Your task to perform on an android device: What's the news in the Dominican Republic? Image 0: 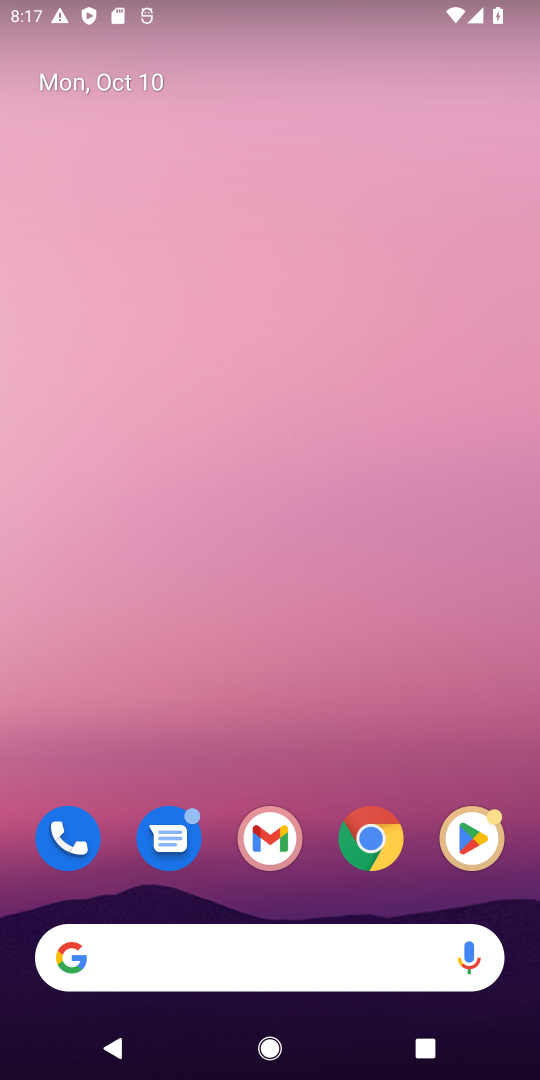
Step 0: press home button
Your task to perform on an android device: What's the news in the Dominican Republic? Image 1: 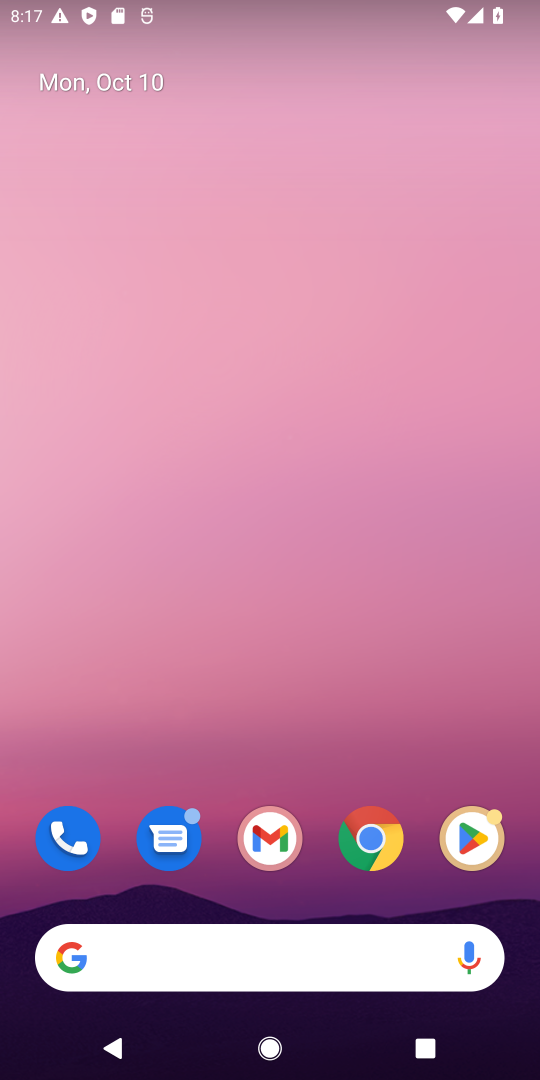
Step 1: drag from (311, 910) to (314, 96)
Your task to perform on an android device: What's the news in the Dominican Republic? Image 2: 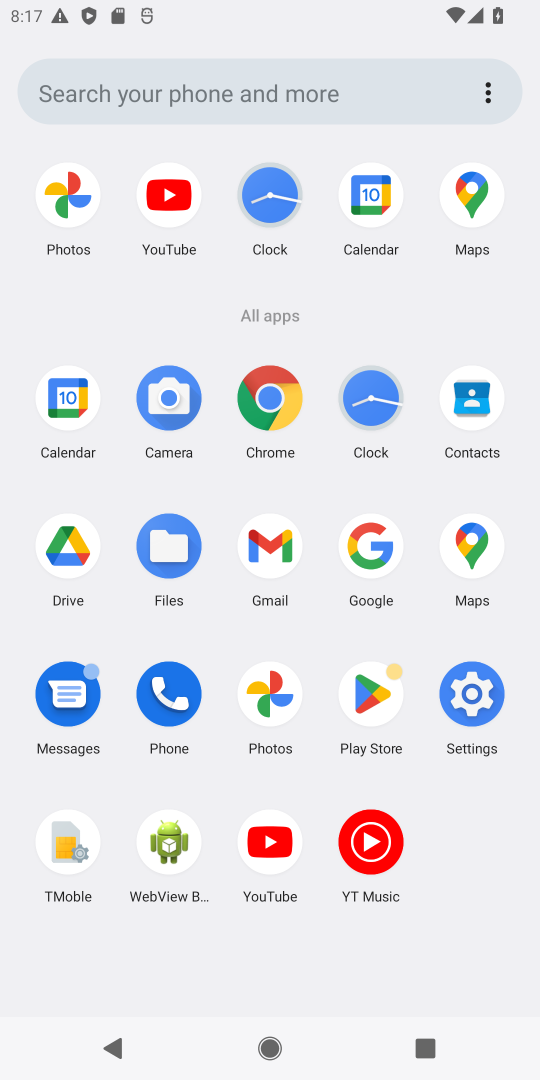
Step 2: click (369, 549)
Your task to perform on an android device: What's the news in the Dominican Republic? Image 3: 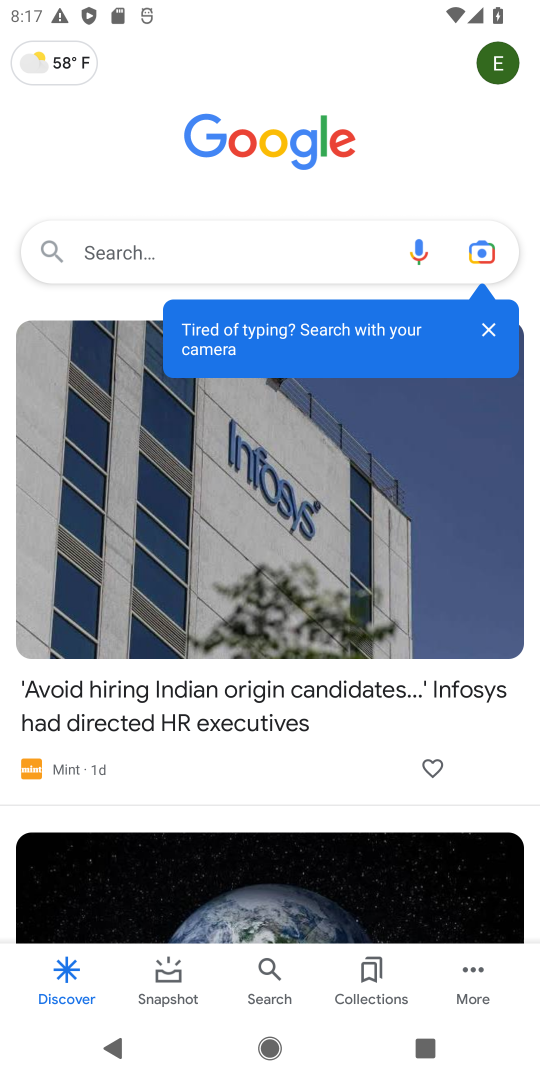
Step 3: click (197, 256)
Your task to perform on an android device: What's the news in the Dominican Republic? Image 4: 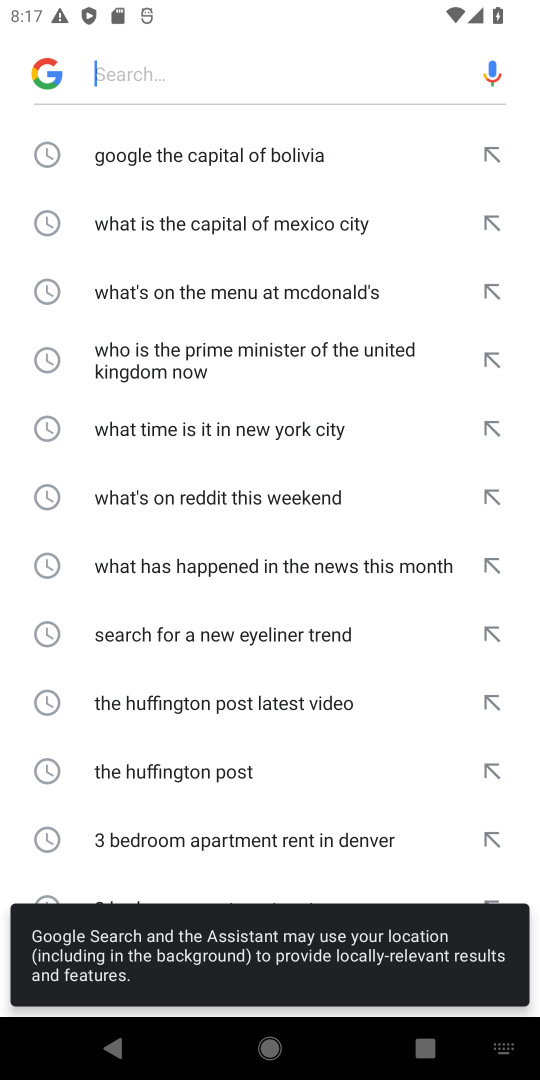
Step 4: type "What's the news in the Dominican Republic?"
Your task to perform on an android device: What's the news in the Dominican Republic? Image 5: 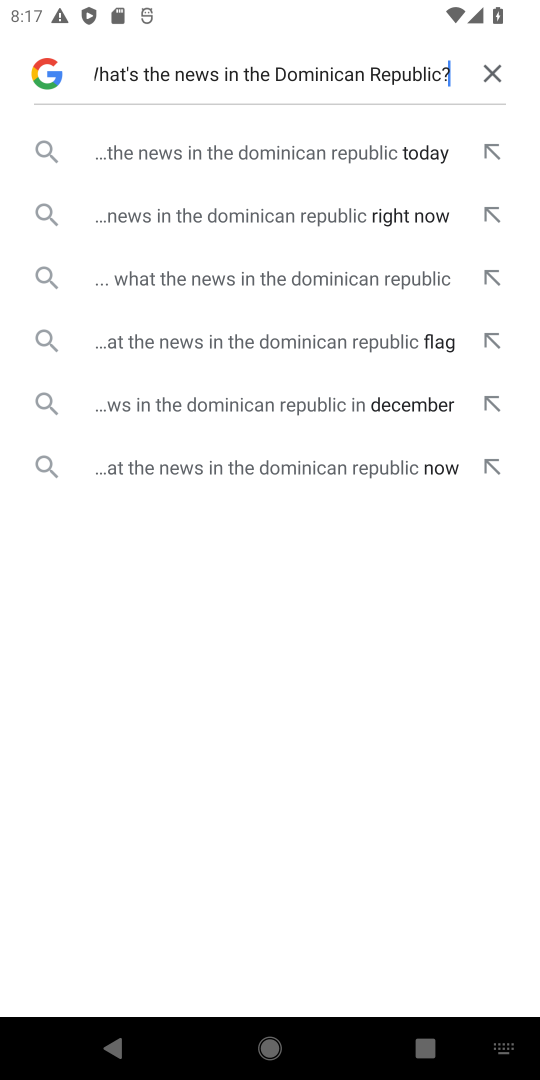
Step 5: type ""
Your task to perform on an android device: What's the news in the Dominican Republic? Image 6: 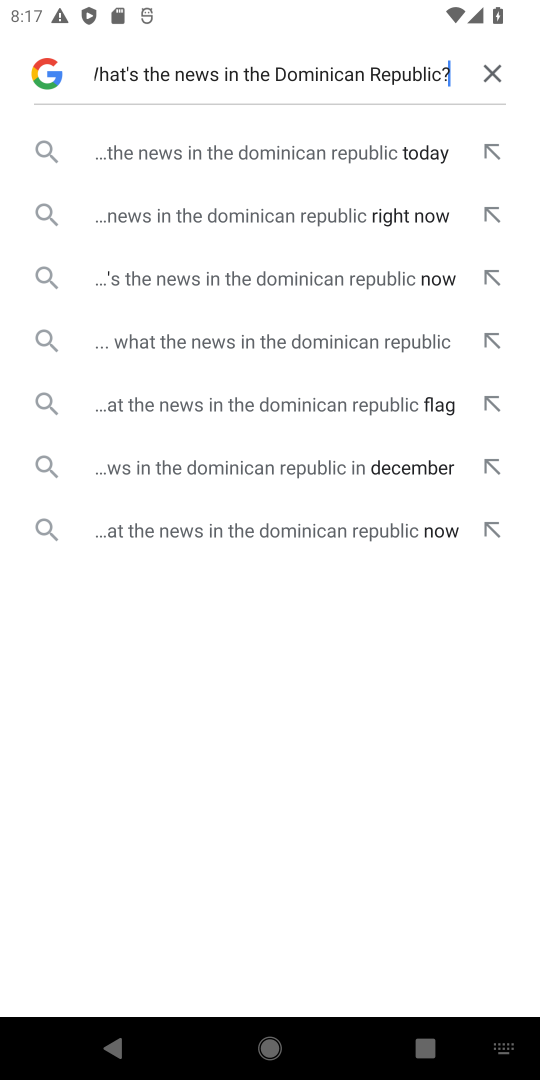
Step 6: click (261, 156)
Your task to perform on an android device: What's the news in the Dominican Republic? Image 7: 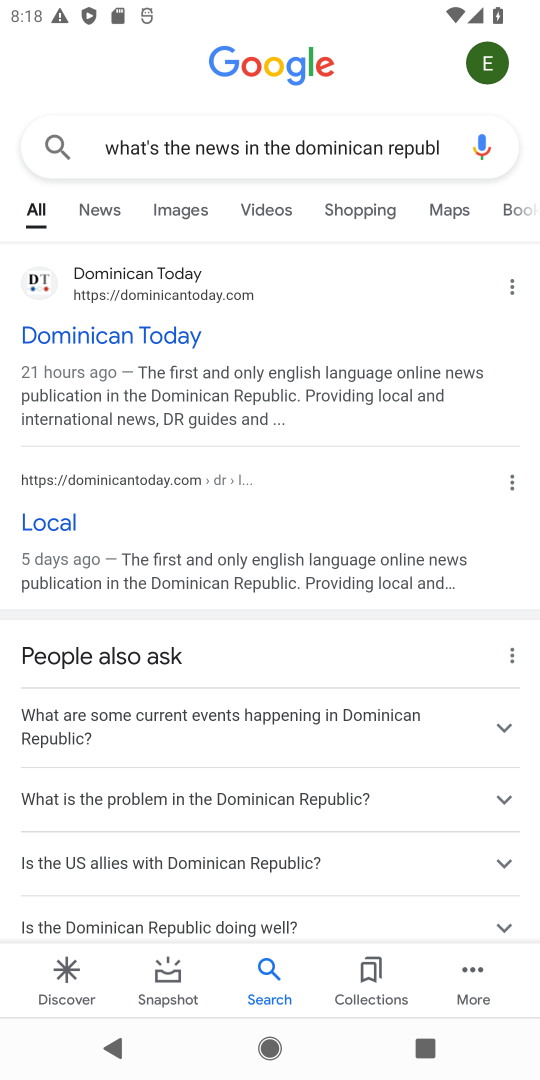
Step 7: click (106, 211)
Your task to perform on an android device: What's the news in the Dominican Republic? Image 8: 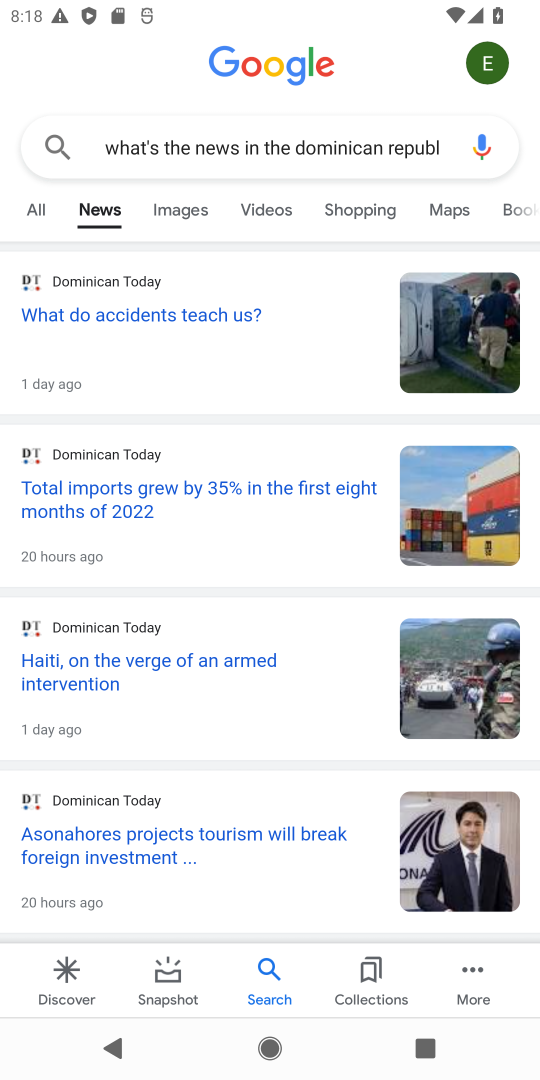
Step 8: task complete